Your task to perform on an android device: open device folders in google photos Image 0: 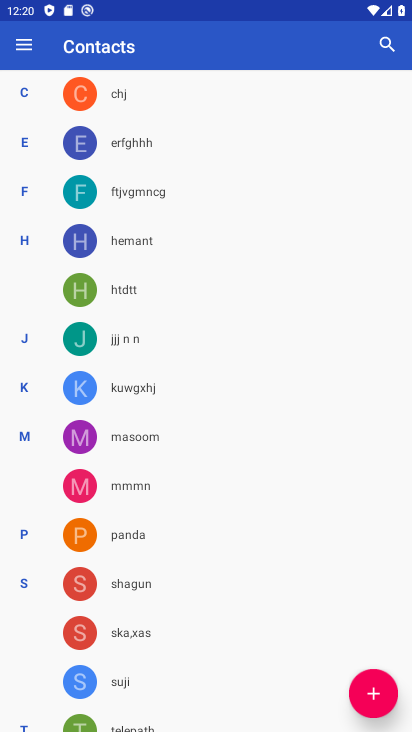
Step 0: press home button
Your task to perform on an android device: open device folders in google photos Image 1: 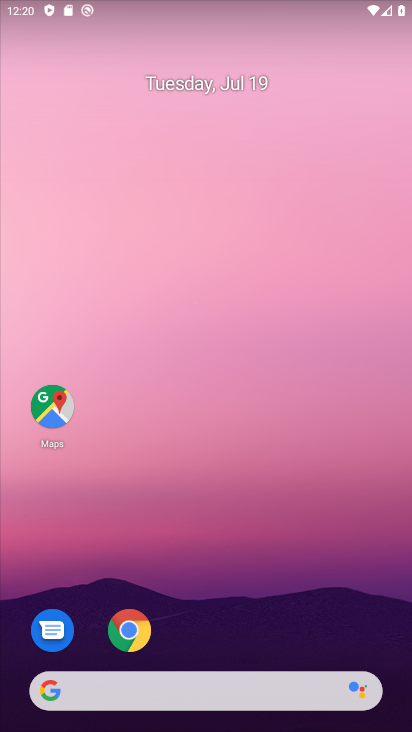
Step 1: drag from (134, 675) to (325, 87)
Your task to perform on an android device: open device folders in google photos Image 2: 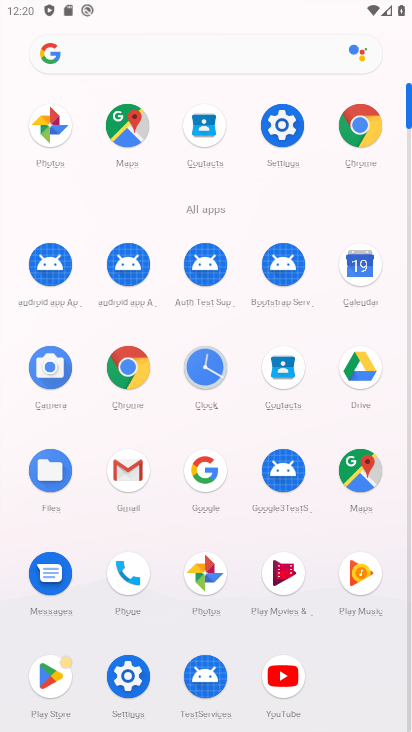
Step 2: click (211, 570)
Your task to perform on an android device: open device folders in google photos Image 3: 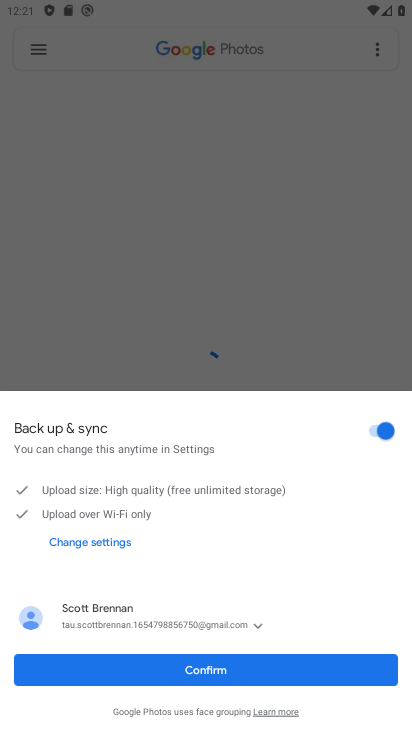
Step 3: click (212, 675)
Your task to perform on an android device: open device folders in google photos Image 4: 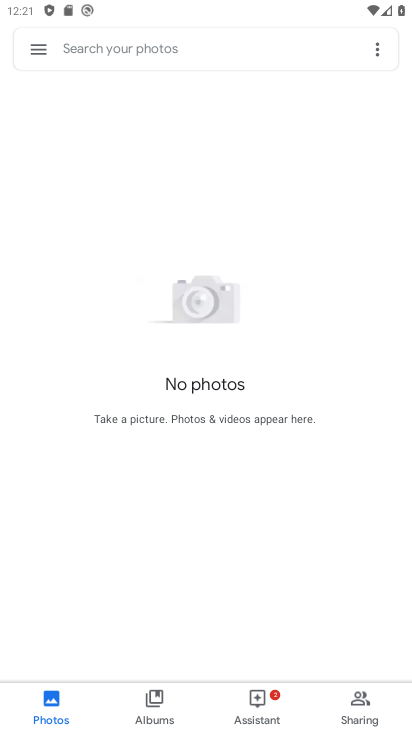
Step 4: click (35, 47)
Your task to perform on an android device: open device folders in google photos Image 5: 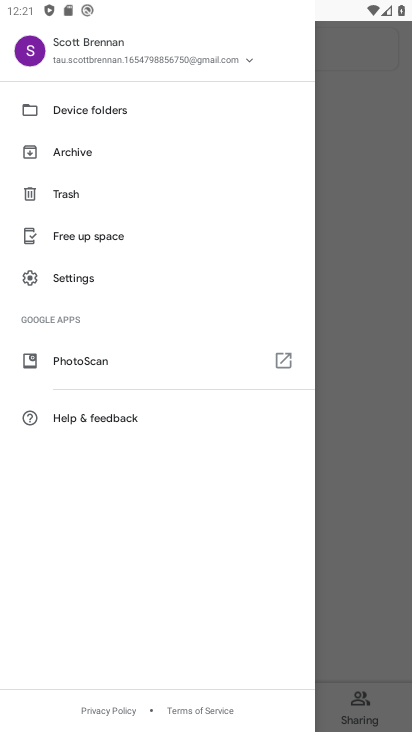
Step 5: click (101, 110)
Your task to perform on an android device: open device folders in google photos Image 6: 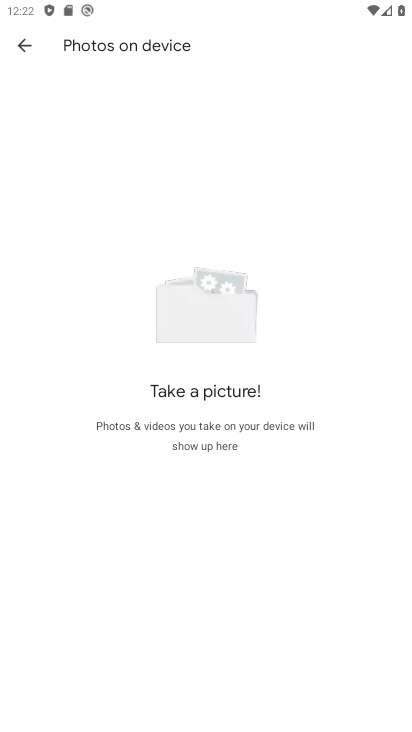
Step 6: task complete